Your task to perform on an android device: What's the weather today? Image 0: 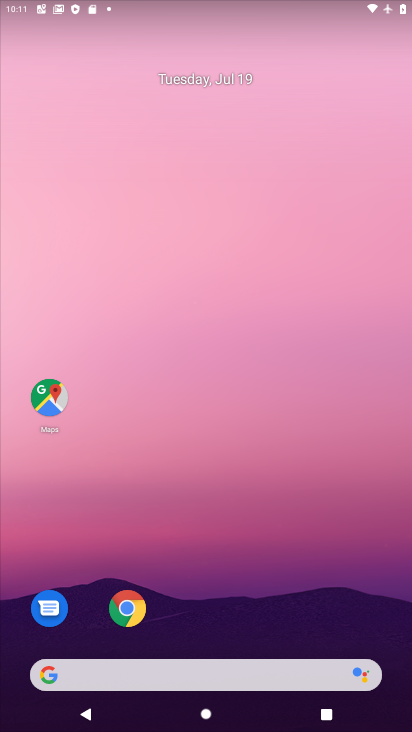
Step 0: drag from (303, 437) to (310, 4)
Your task to perform on an android device: What's the weather today? Image 1: 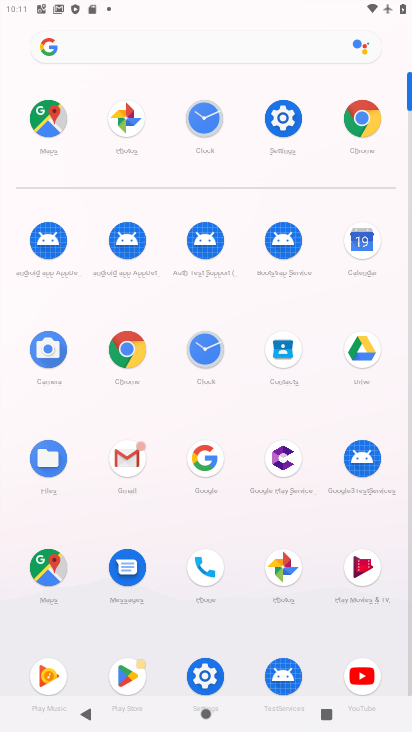
Step 1: click (367, 115)
Your task to perform on an android device: What's the weather today? Image 2: 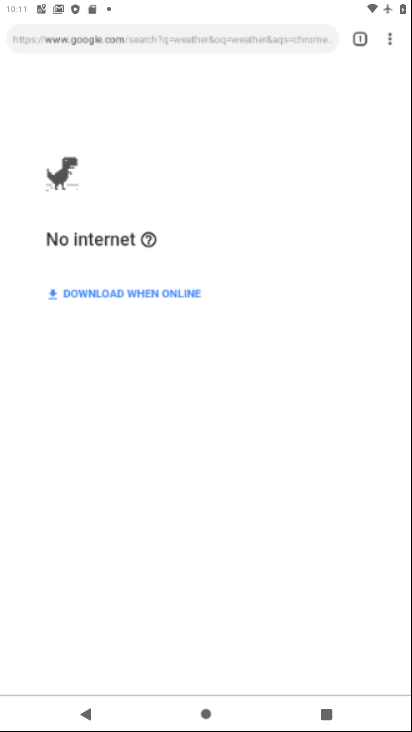
Step 2: click (246, 37)
Your task to perform on an android device: What's the weather today? Image 3: 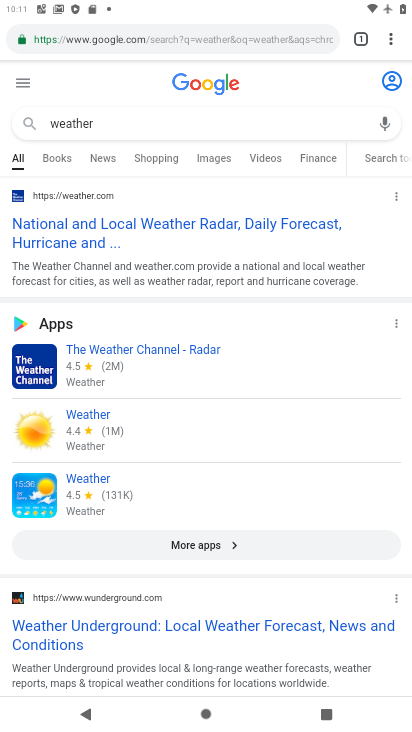
Step 3: click (282, 45)
Your task to perform on an android device: What's the weather today? Image 4: 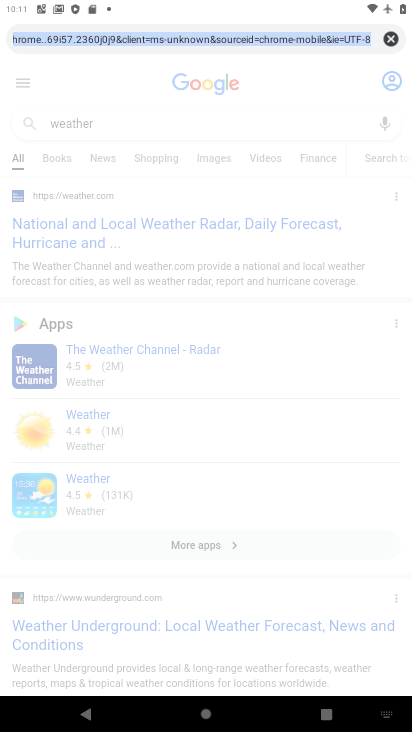
Step 4: type "weather"
Your task to perform on an android device: What's the weather today? Image 5: 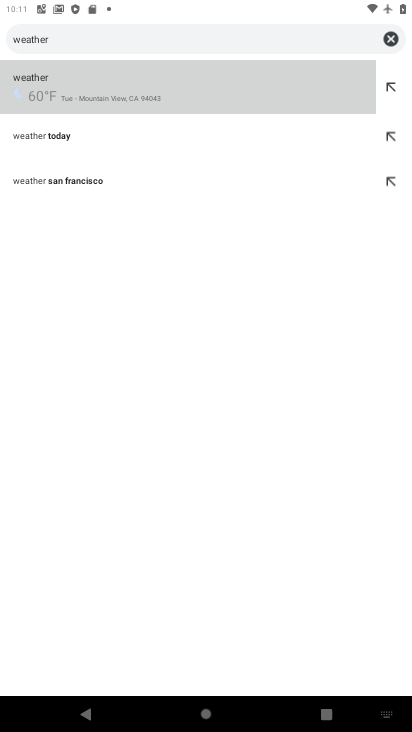
Step 5: click (182, 101)
Your task to perform on an android device: What's the weather today? Image 6: 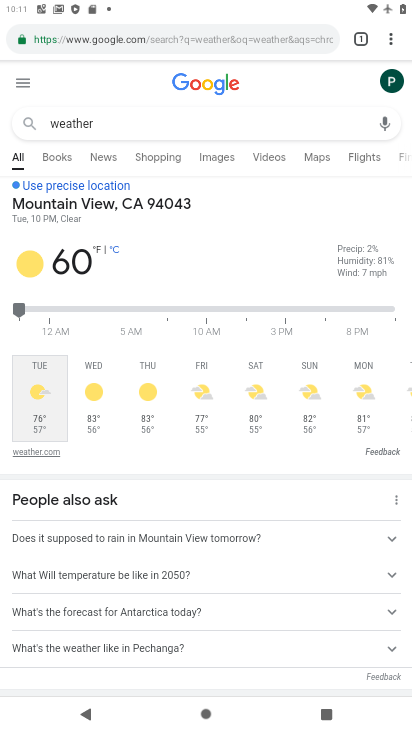
Step 6: task complete